Your task to perform on an android device: toggle javascript in the chrome app Image 0: 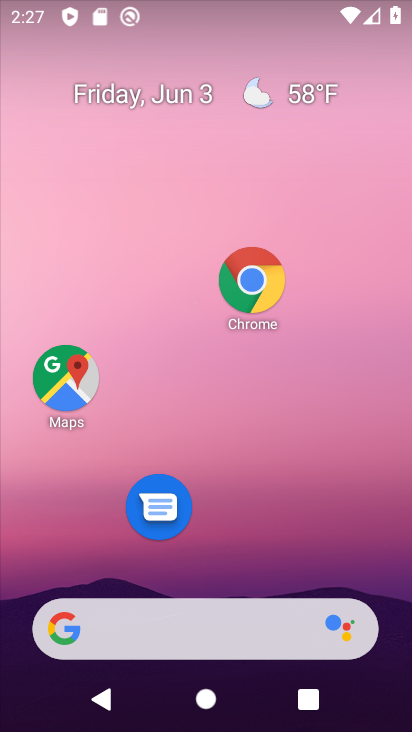
Step 0: click (256, 280)
Your task to perform on an android device: toggle javascript in the chrome app Image 1: 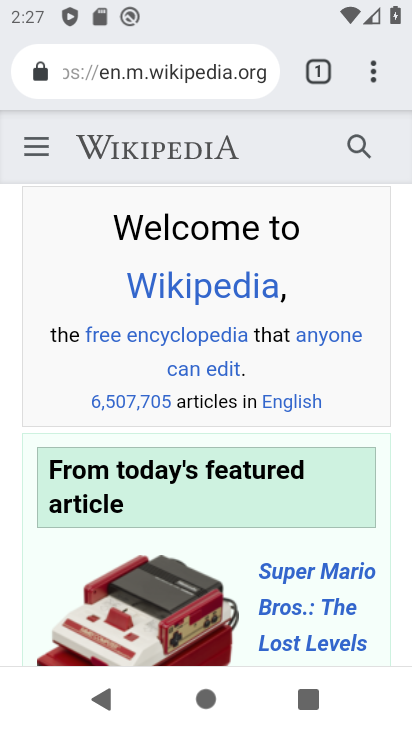
Step 1: click (365, 71)
Your task to perform on an android device: toggle javascript in the chrome app Image 2: 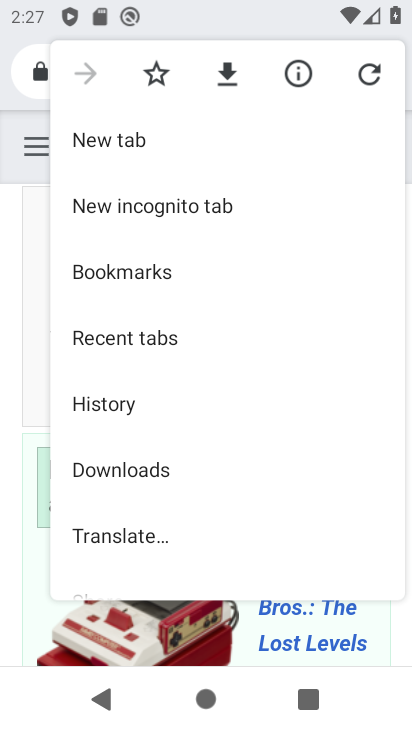
Step 2: drag from (257, 497) to (211, 139)
Your task to perform on an android device: toggle javascript in the chrome app Image 3: 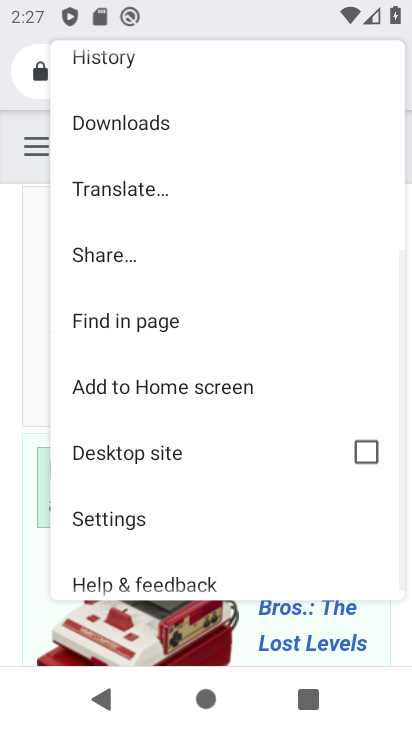
Step 3: click (163, 512)
Your task to perform on an android device: toggle javascript in the chrome app Image 4: 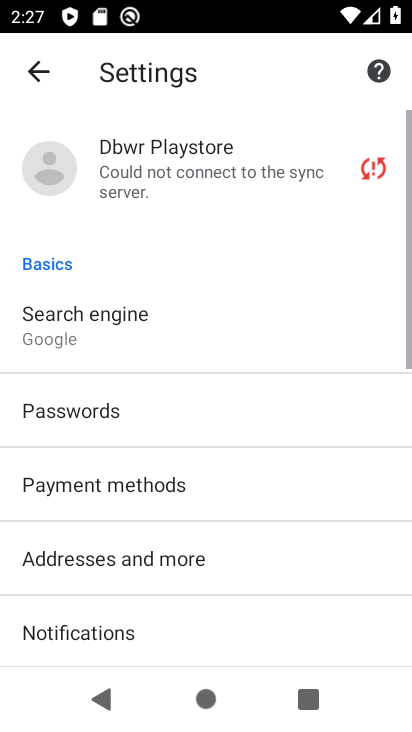
Step 4: drag from (237, 538) to (232, 77)
Your task to perform on an android device: toggle javascript in the chrome app Image 5: 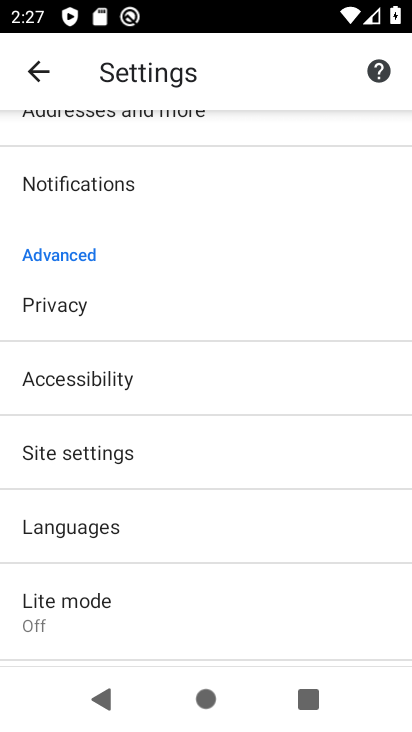
Step 5: click (108, 468)
Your task to perform on an android device: toggle javascript in the chrome app Image 6: 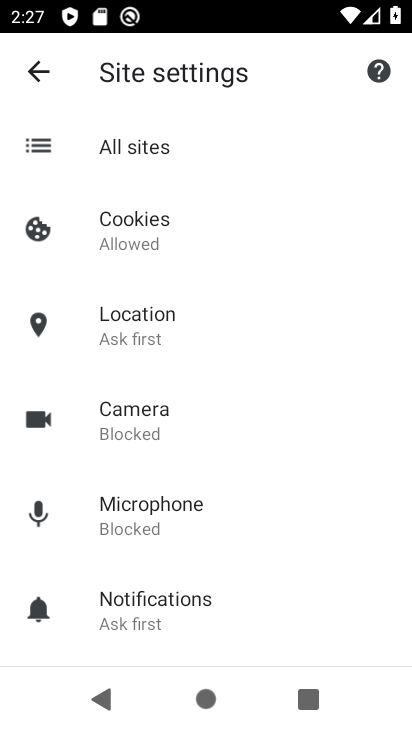
Step 6: drag from (233, 507) to (207, 134)
Your task to perform on an android device: toggle javascript in the chrome app Image 7: 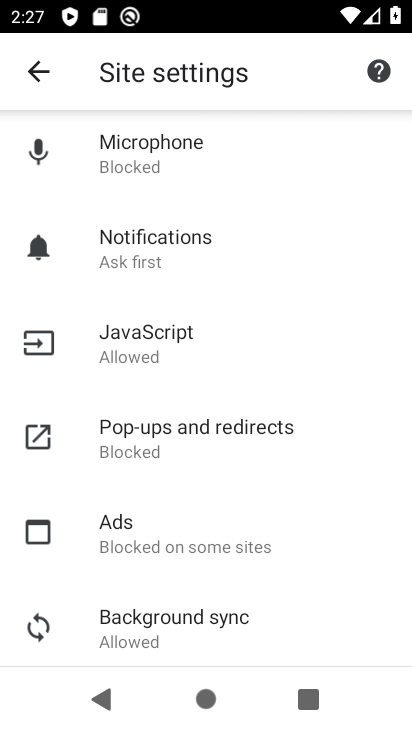
Step 7: click (188, 355)
Your task to perform on an android device: toggle javascript in the chrome app Image 8: 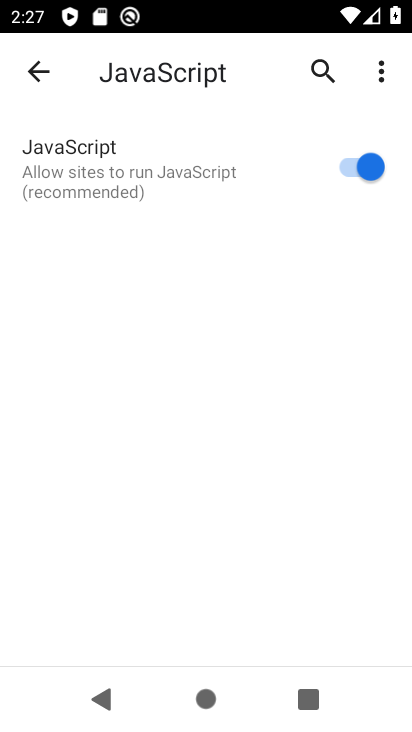
Step 8: click (364, 169)
Your task to perform on an android device: toggle javascript in the chrome app Image 9: 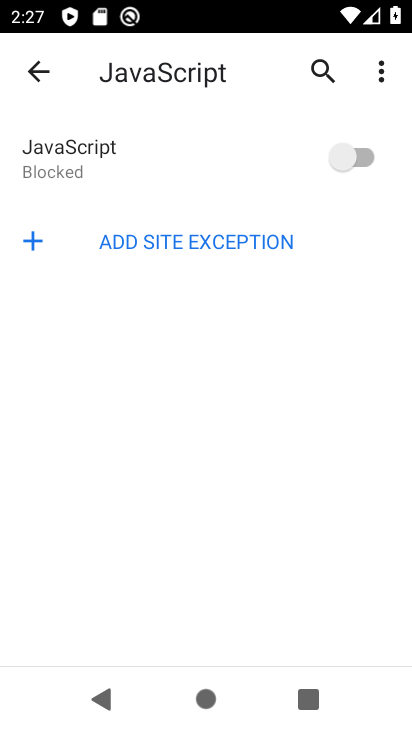
Step 9: task complete